Your task to perform on an android device: Open the Play Movies app and select the watchlist tab. Image 0: 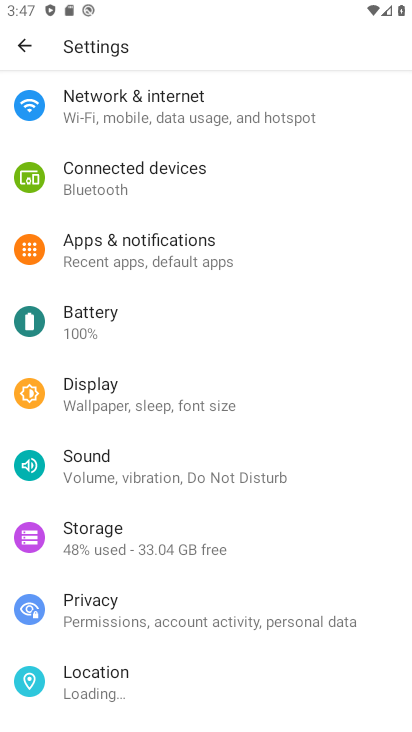
Step 0: press home button
Your task to perform on an android device: Open the Play Movies app and select the watchlist tab. Image 1: 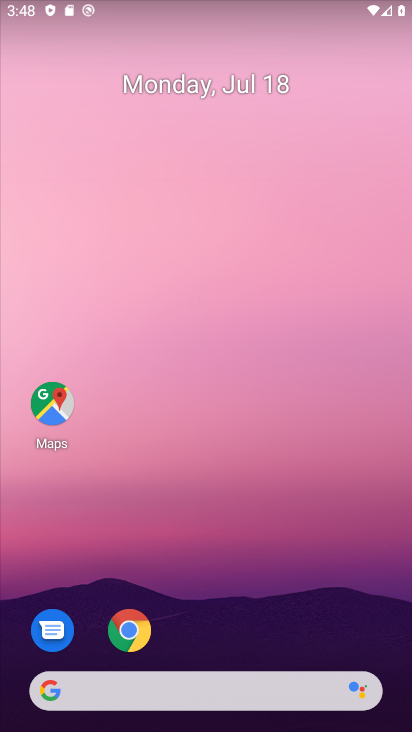
Step 1: drag from (344, 645) to (251, 24)
Your task to perform on an android device: Open the Play Movies app and select the watchlist tab. Image 2: 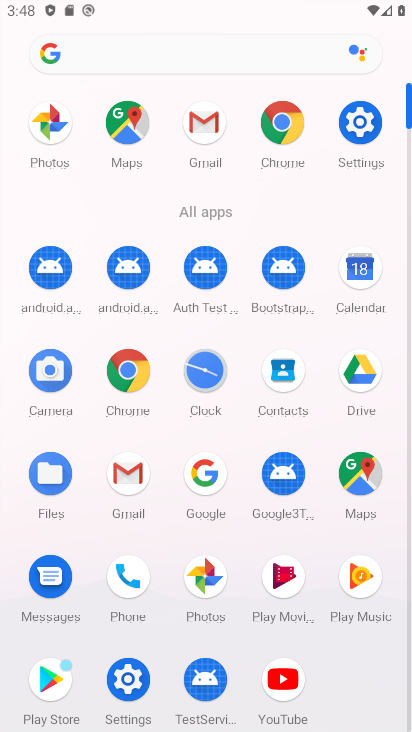
Step 2: click (289, 571)
Your task to perform on an android device: Open the Play Movies app and select the watchlist tab. Image 3: 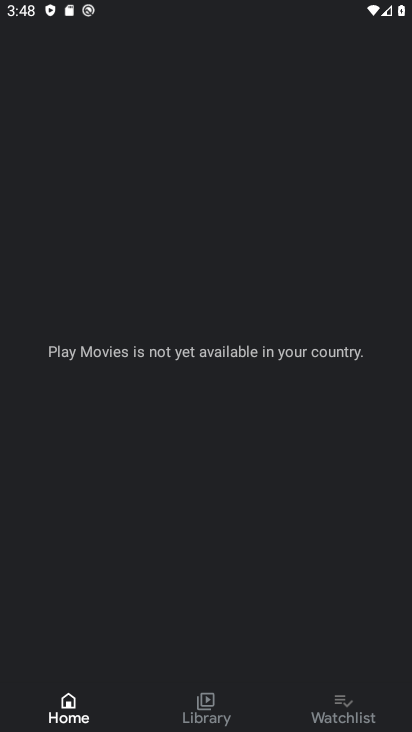
Step 3: click (365, 702)
Your task to perform on an android device: Open the Play Movies app and select the watchlist tab. Image 4: 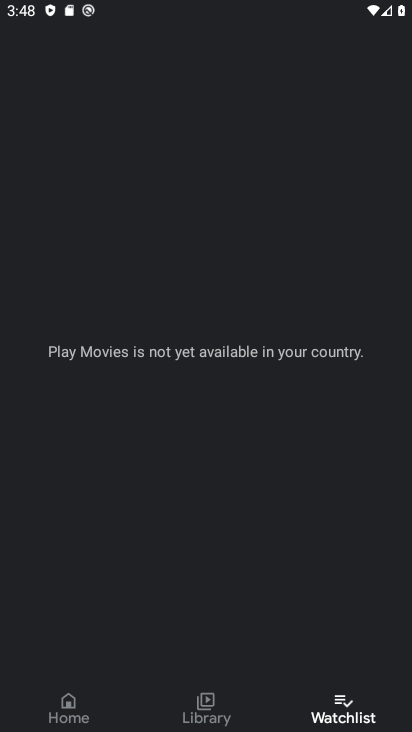
Step 4: task complete